Your task to perform on an android device: Go to network settings Image 0: 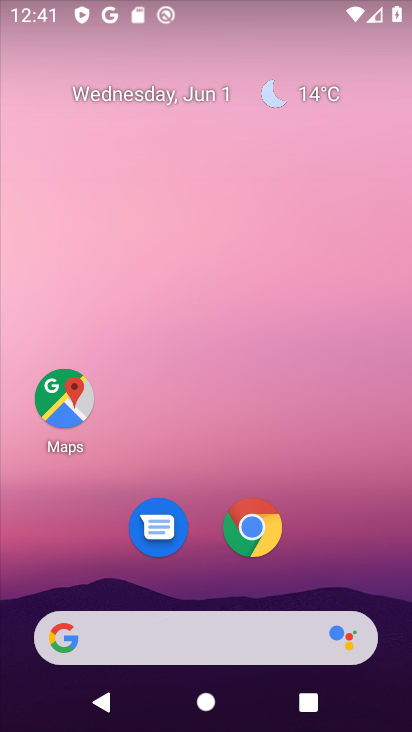
Step 0: drag from (220, 666) to (252, 234)
Your task to perform on an android device: Go to network settings Image 1: 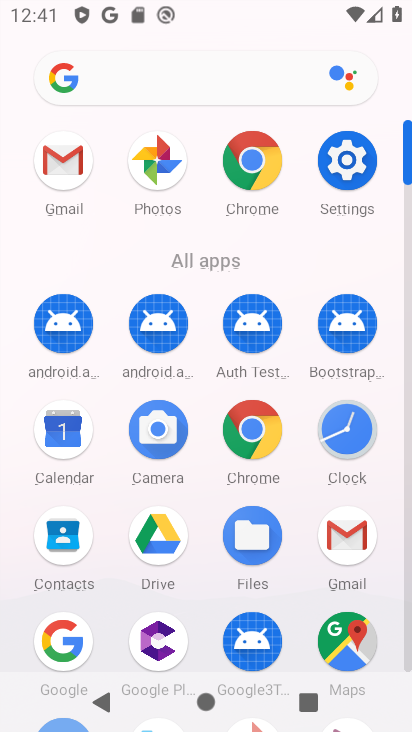
Step 1: click (350, 181)
Your task to perform on an android device: Go to network settings Image 2: 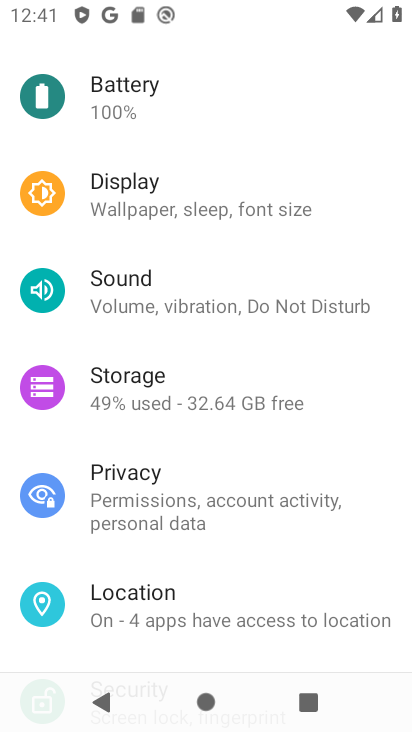
Step 2: drag from (223, 249) to (177, 557)
Your task to perform on an android device: Go to network settings Image 3: 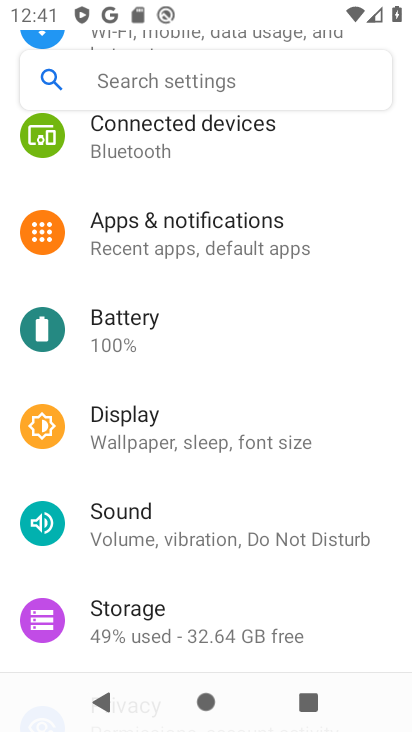
Step 3: drag from (238, 297) to (189, 589)
Your task to perform on an android device: Go to network settings Image 4: 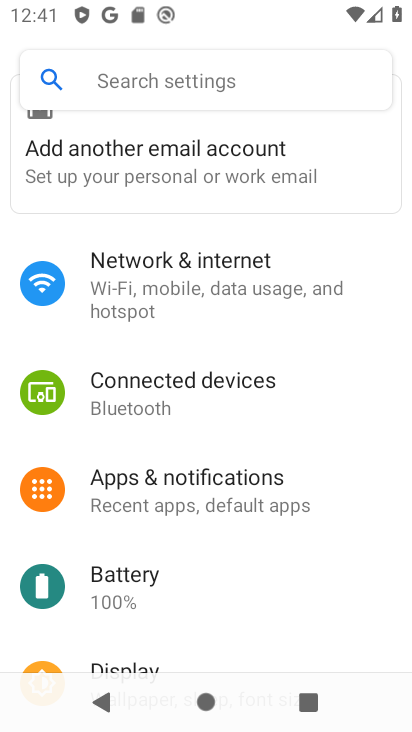
Step 4: click (252, 279)
Your task to perform on an android device: Go to network settings Image 5: 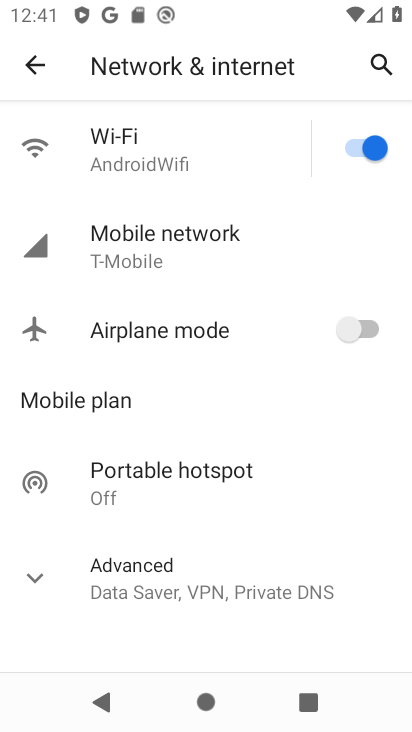
Step 5: click (207, 223)
Your task to perform on an android device: Go to network settings Image 6: 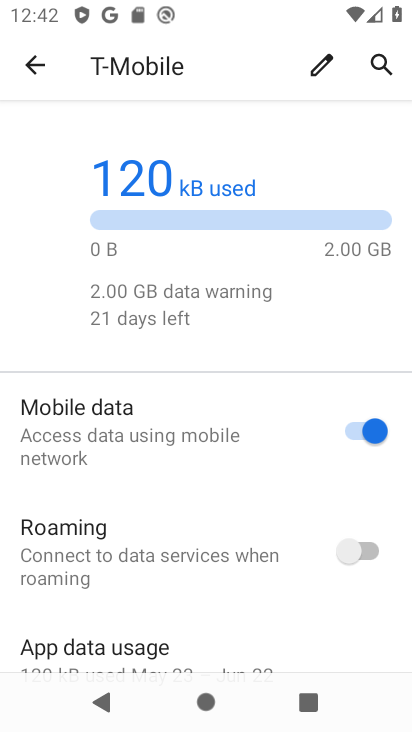
Step 6: task complete